Your task to perform on an android device: Go to privacy settings Image 0: 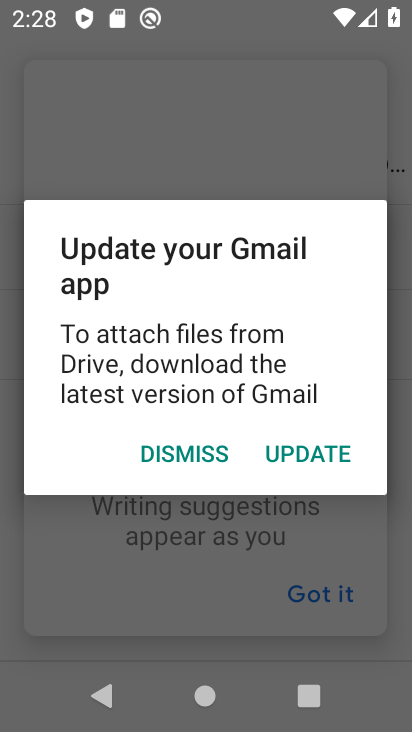
Step 0: press back button
Your task to perform on an android device: Go to privacy settings Image 1: 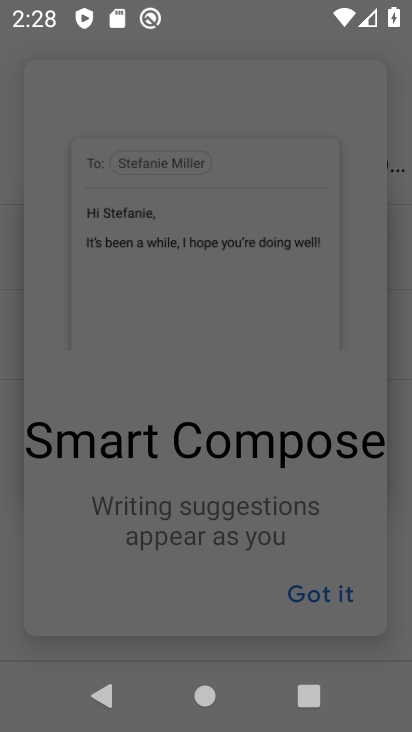
Step 1: press back button
Your task to perform on an android device: Go to privacy settings Image 2: 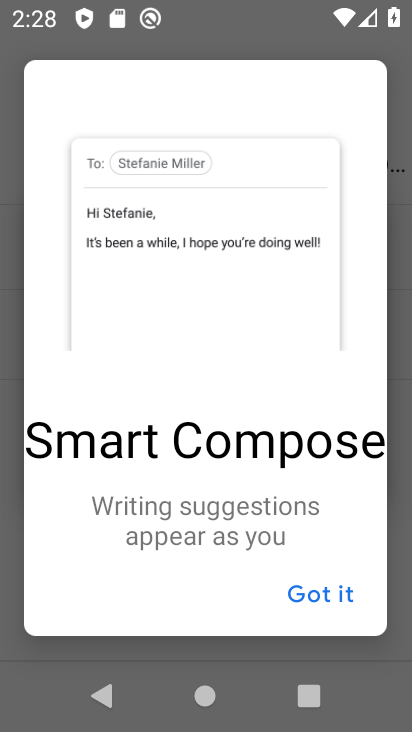
Step 2: press back button
Your task to perform on an android device: Go to privacy settings Image 3: 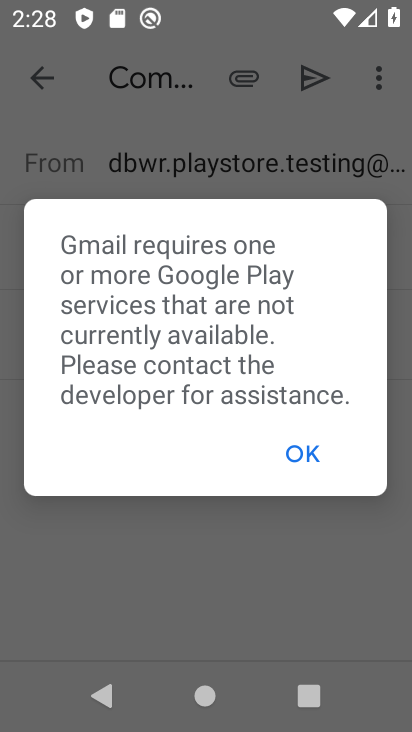
Step 3: press back button
Your task to perform on an android device: Go to privacy settings Image 4: 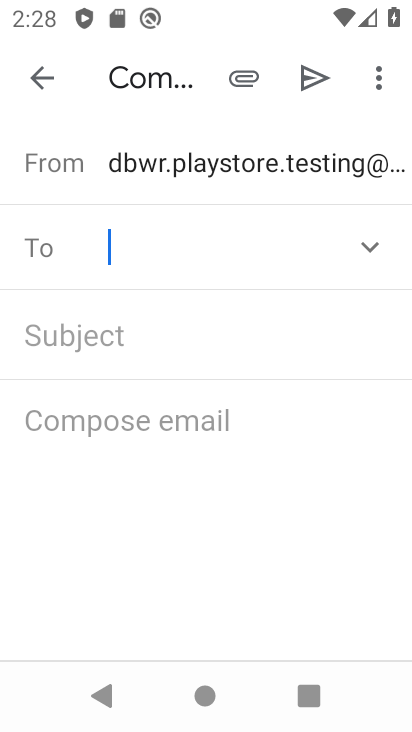
Step 4: press back button
Your task to perform on an android device: Go to privacy settings Image 5: 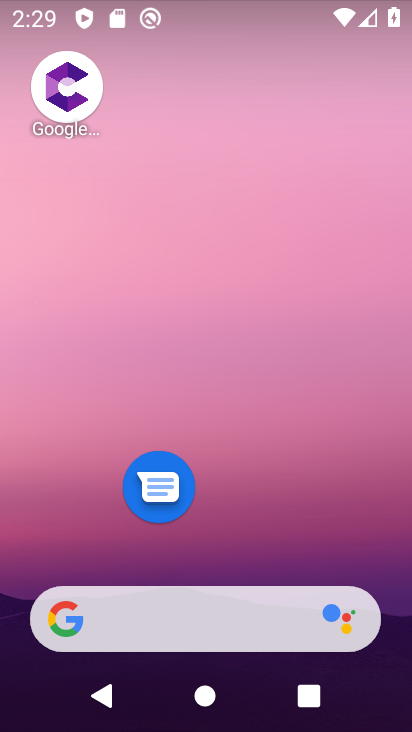
Step 5: drag from (172, 583) to (376, 99)
Your task to perform on an android device: Go to privacy settings Image 6: 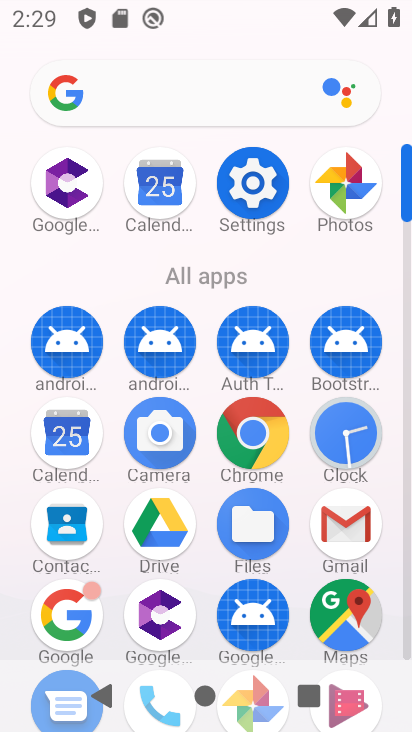
Step 6: click (265, 185)
Your task to perform on an android device: Go to privacy settings Image 7: 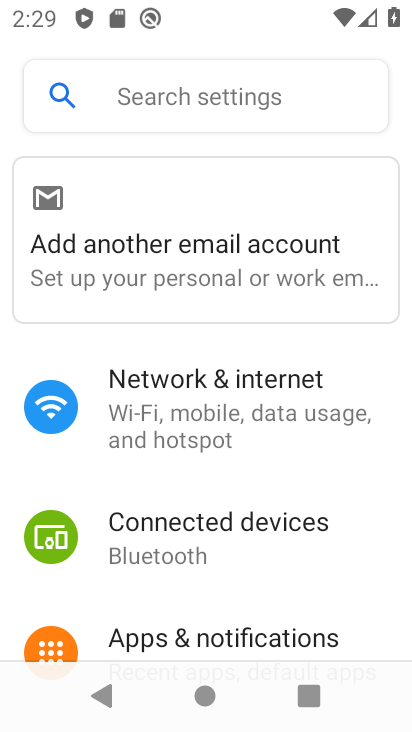
Step 7: drag from (227, 545) to (389, 88)
Your task to perform on an android device: Go to privacy settings Image 8: 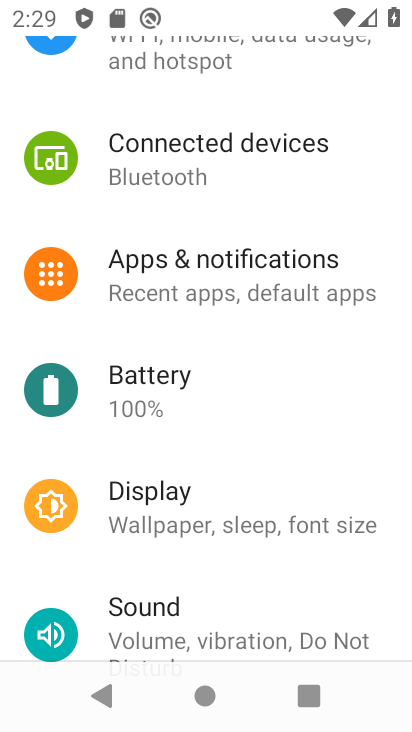
Step 8: drag from (403, 114) to (409, 156)
Your task to perform on an android device: Go to privacy settings Image 9: 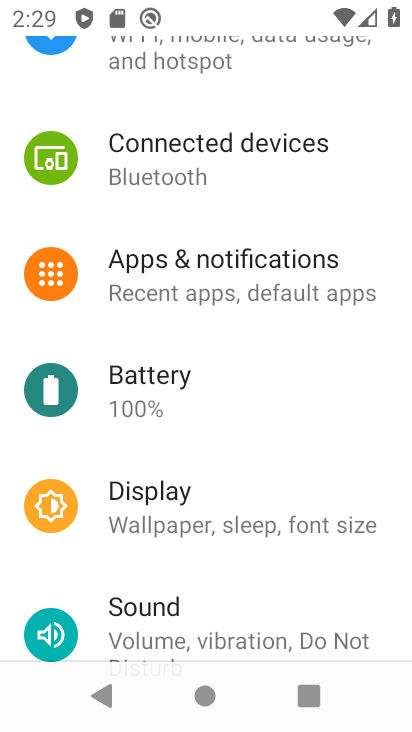
Step 9: drag from (184, 512) to (338, 105)
Your task to perform on an android device: Go to privacy settings Image 10: 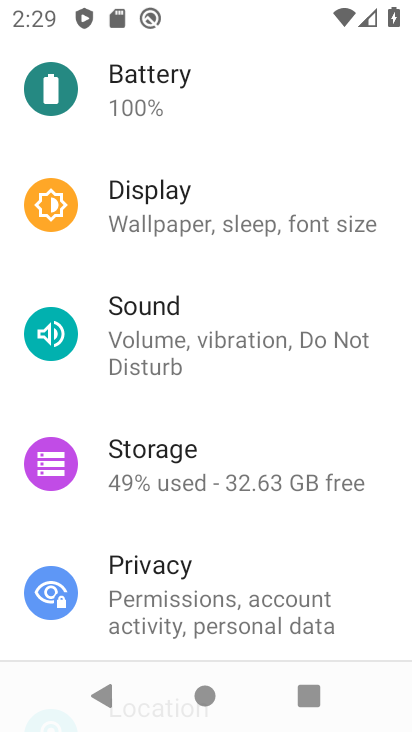
Step 10: click (194, 615)
Your task to perform on an android device: Go to privacy settings Image 11: 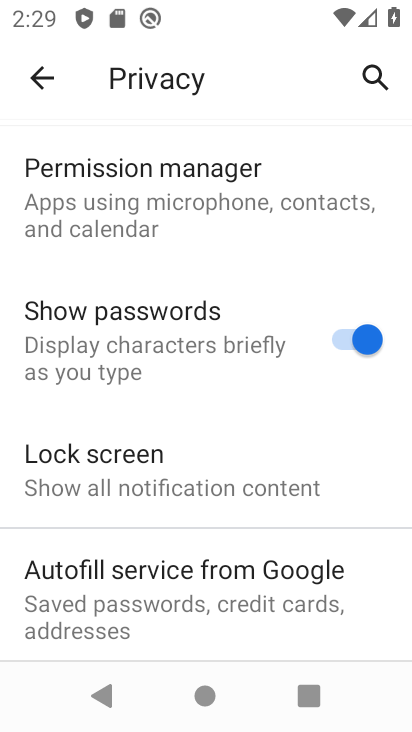
Step 11: task complete